Your task to perform on an android device: open a bookmark in the chrome app Image 0: 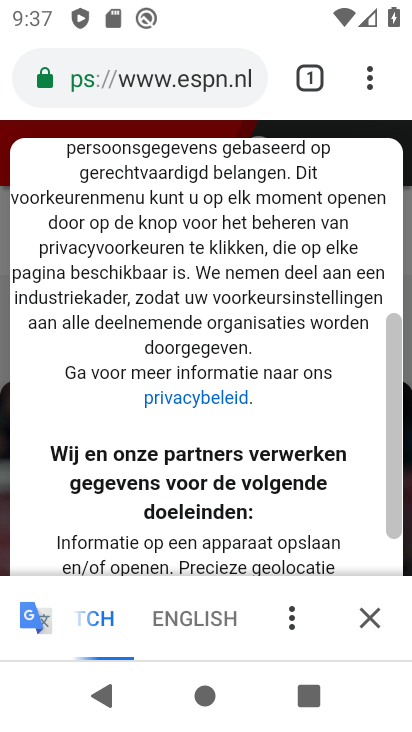
Step 0: click (380, 79)
Your task to perform on an android device: open a bookmark in the chrome app Image 1: 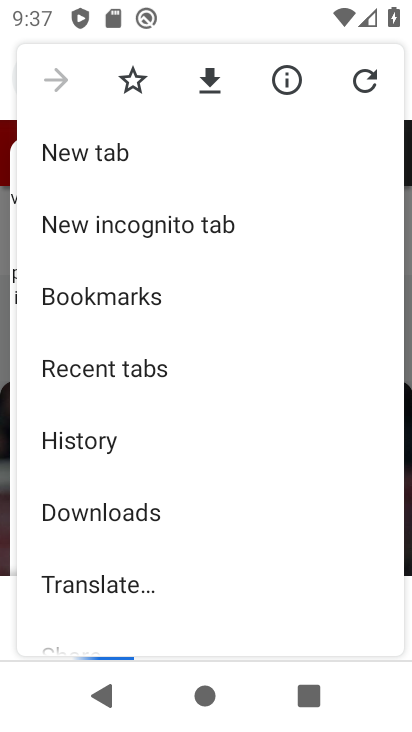
Step 1: click (154, 291)
Your task to perform on an android device: open a bookmark in the chrome app Image 2: 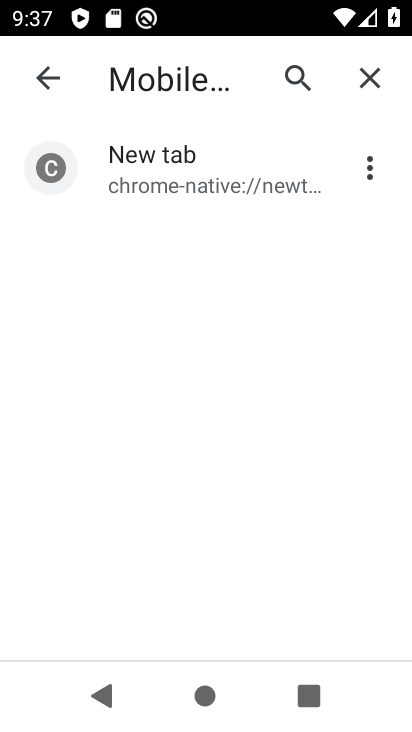
Step 2: click (173, 166)
Your task to perform on an android device: open a bookmark in the chrome app Image 3: 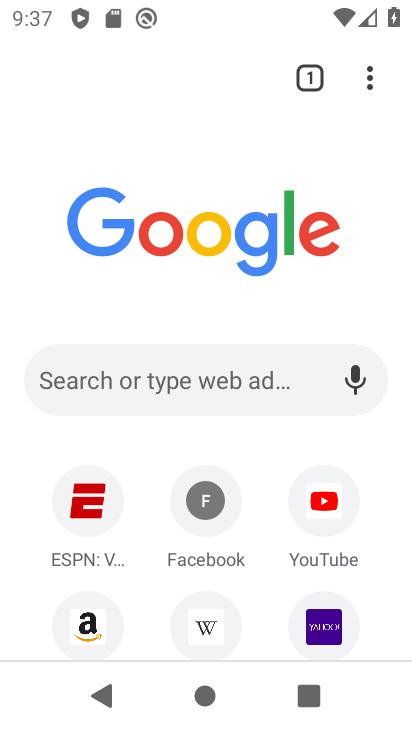
Step 3: task complete